Your task to perform on an android device: toggle location history Image 0: 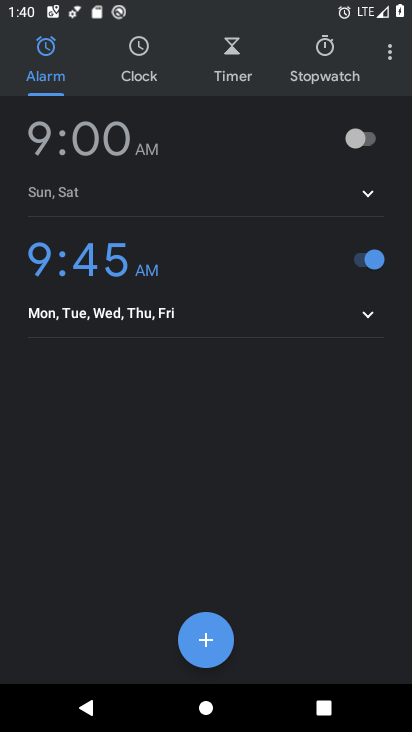
Step 0: press back button
Your task to perform on an android device: toggle location history Image 1: 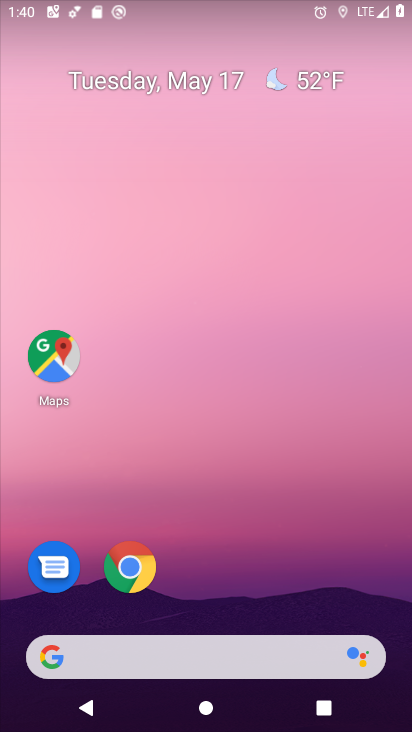
Step 1: drag from (266, 224) to (275, 110)
Your task to perform on an android device: toggle location history Image 2: 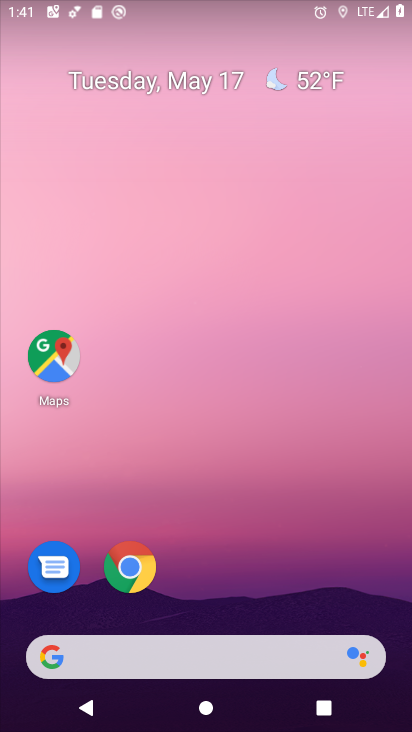
Step 2: drag from (197, 617) to (254, 26)
Your task to perform on an android device: toggle location history Image 3: 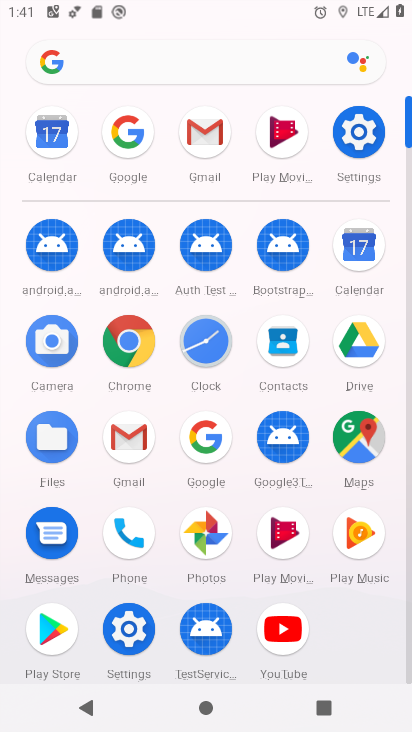
Step 3: drag from (210, 571) to (258, 96)
Your task to perform on an android device: toggle location history Image 4: 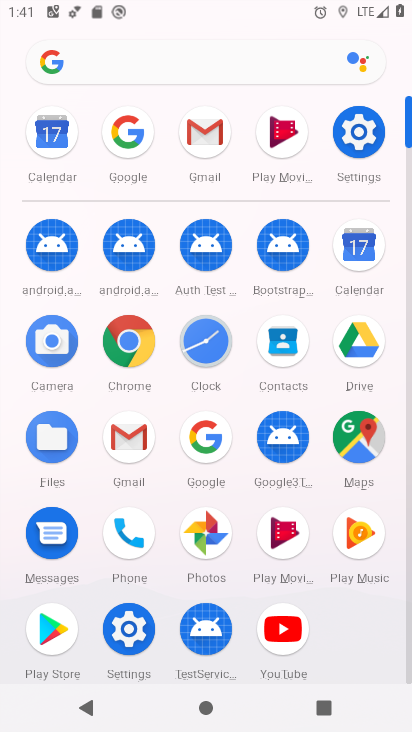
Step 4: click (359, 137)
Your task to perform on an android device: toggle location history Image 5: 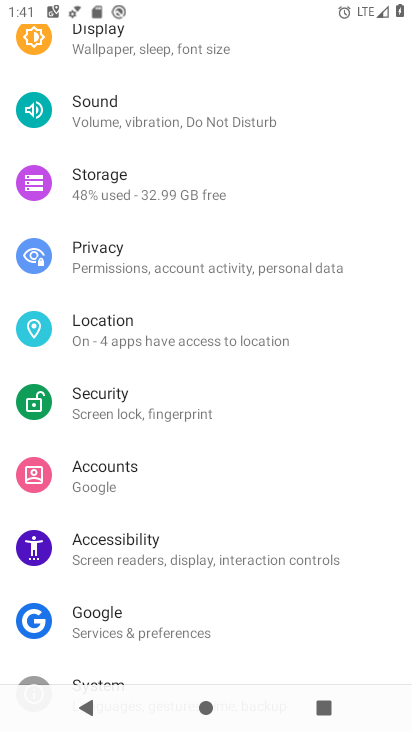
Step 5: click (102, 357)
Your task to perform on an android device: toggle location history Image 6: 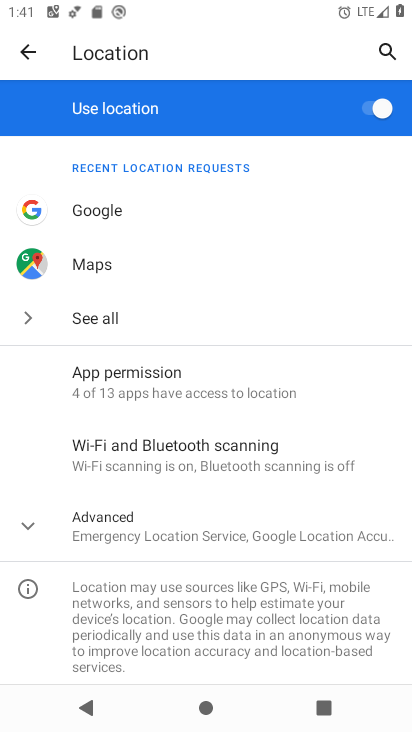
Step 6: click (135, 533)
Your task to perform on an android device: toggle location history Image 7: 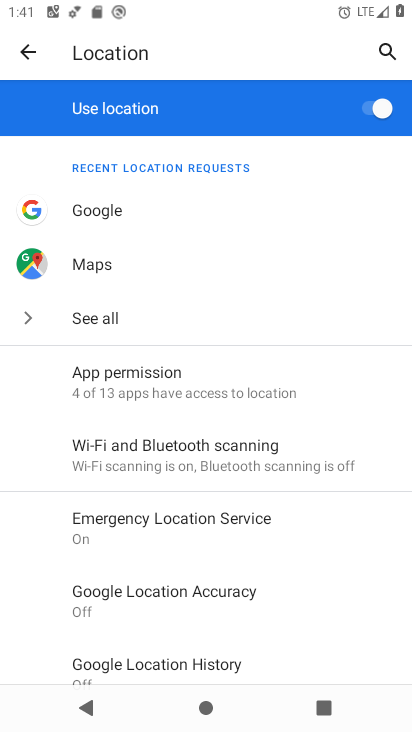
Step 7: drag from (159, 629) to (233, 373)
Your task to perform on an android device: toggle location history Image 8: 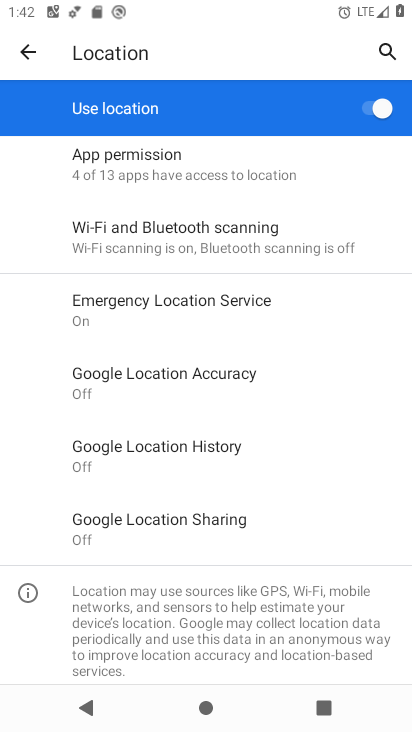
Step 8: click (147, 459)
Your task to perform on an android device: toggle location history Image 9: 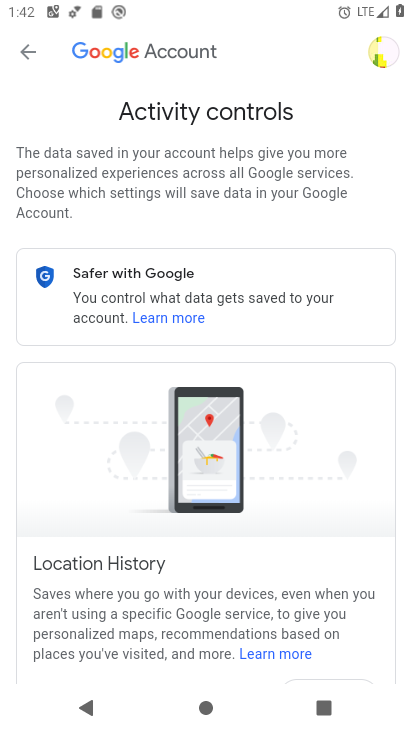
Step 9: drag from (241, 599) to (372, 160)
Your task to perform on an android device: toggle location history Image 10: 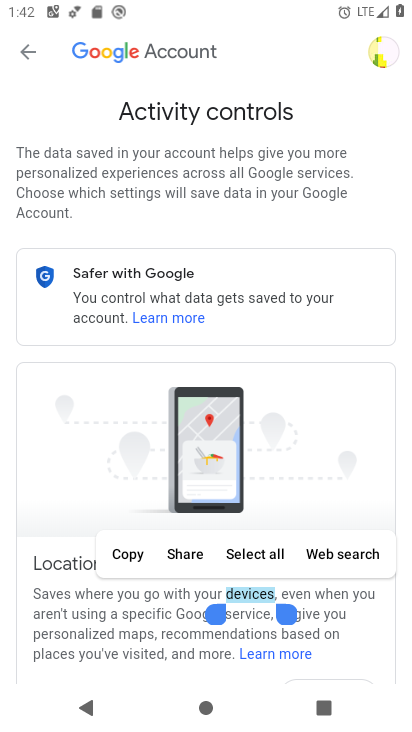
Step 10: drag from (263, 527) to (263, 115)
Your task to perform on an android device: toggle location history Image 11: 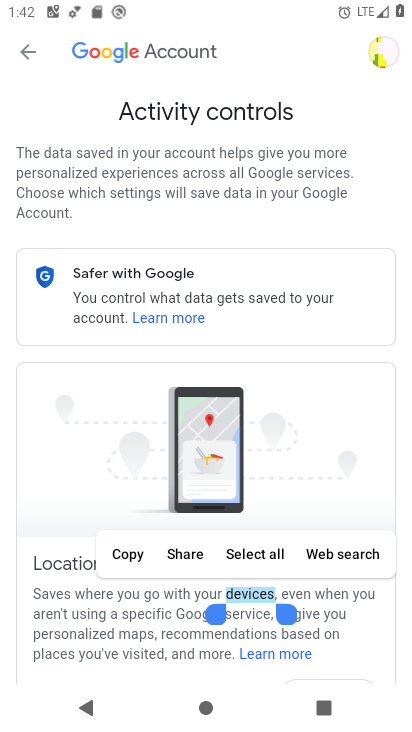
Step 11: click (123, 623)
Your task to perform on an android device: toggle location history Image 12: 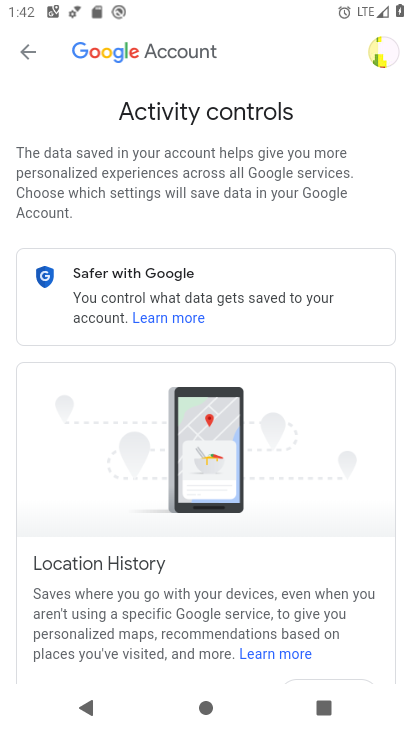
Step 12: drag from (160, 562) to (304, 135)
Your task to perform on an android device: toggle location history Image 13: 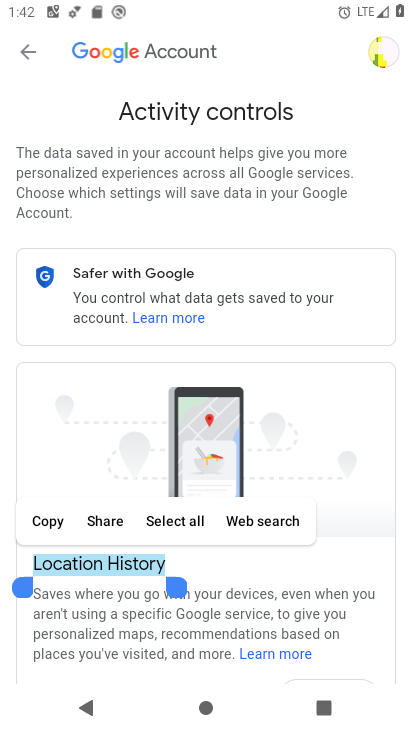
Step 13: click (376, 108)
Your task to perform on an android device: toggle location history Image 14: 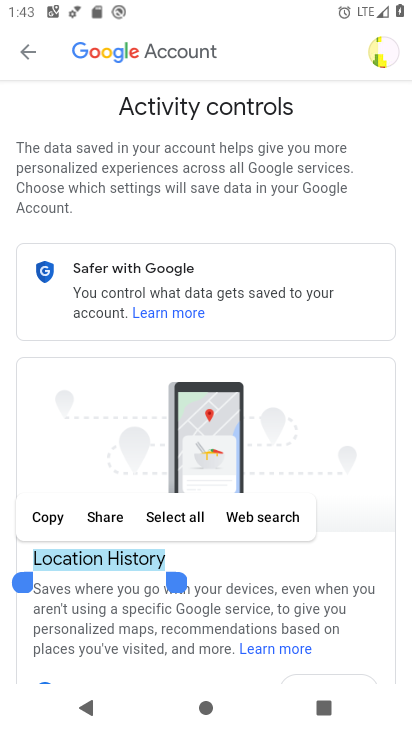
Step 14: drag from (109, 633) to (171, 129)
Your task to perform on an android device: toggle location history Image 15: 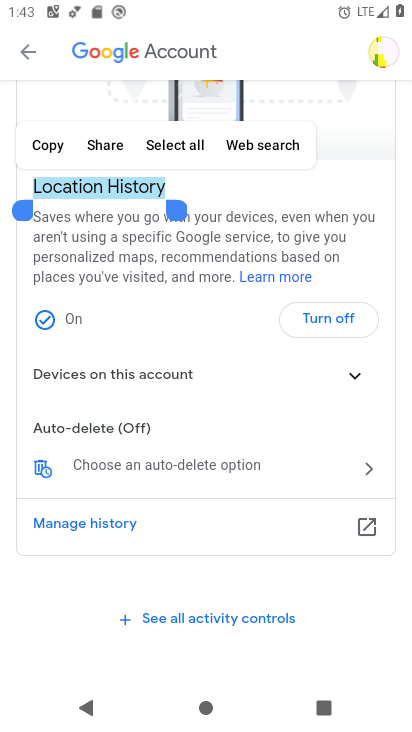
Step 15: click (353, 323)
Your task to perform on an android device: toggle location history Image 16: 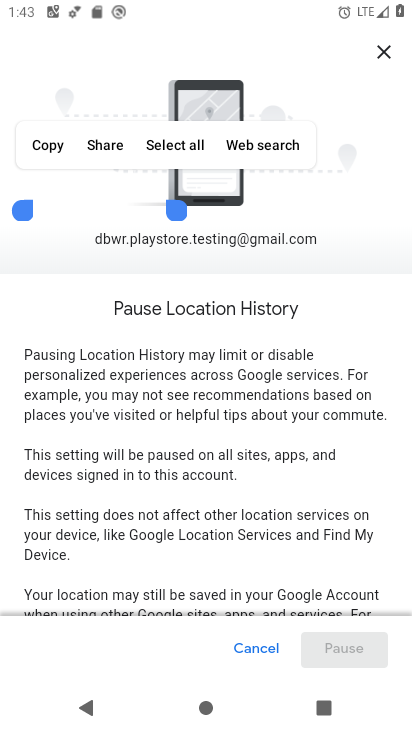
Step 16: drag from (249, 510) to (319, 116)
Your task to perform on an android device: toggle location history Image 17: 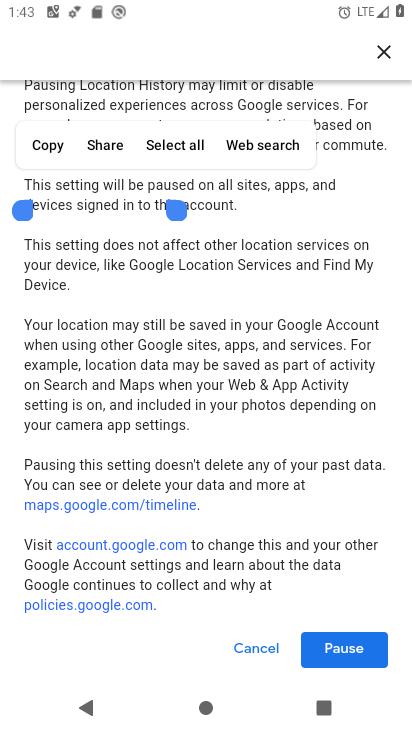
Step 17: click (326, 655)
Your task to perform on an android device: toggle location history Image 18: 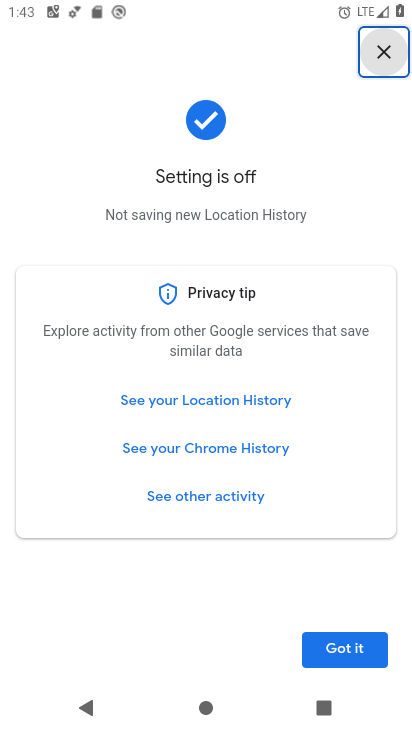
Step 18: click (326, 655)
Your task to perform on an android device: toggle location history Image 19: 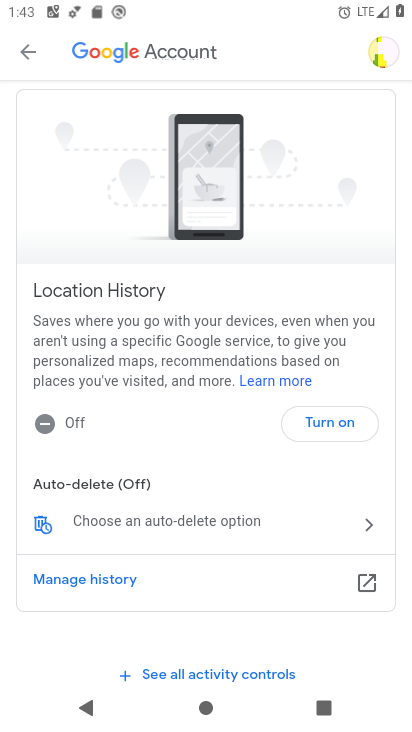
Step 19: task complete